Your task to perform on an android device: Go to display settings Image 0: 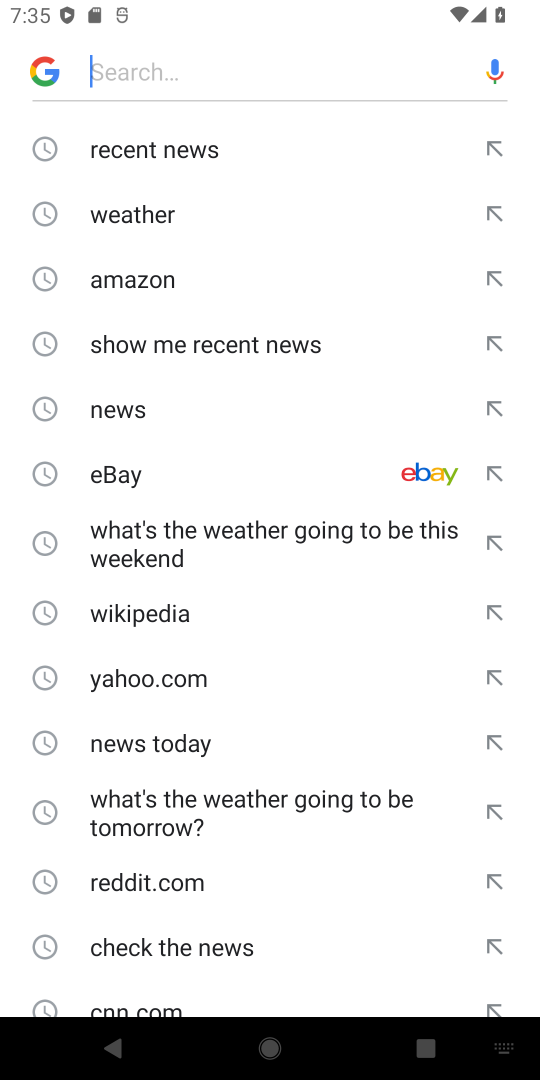
Step 0: press back button
Your task to perform on an android device: Go to display settings Image 1: 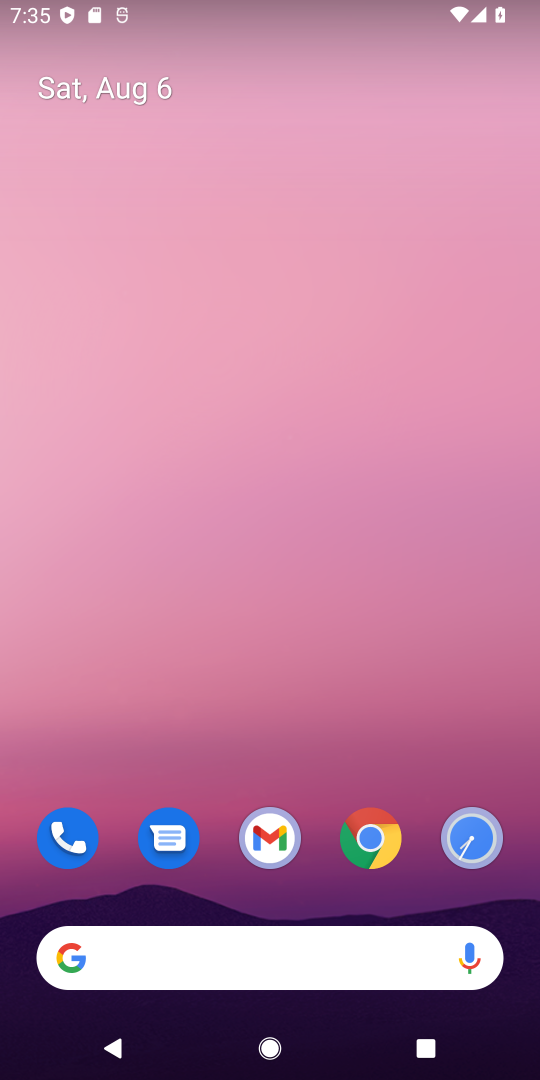
Step 1: click (266, 189)
Your task to perform on an android device: Go to display settings Image 2: 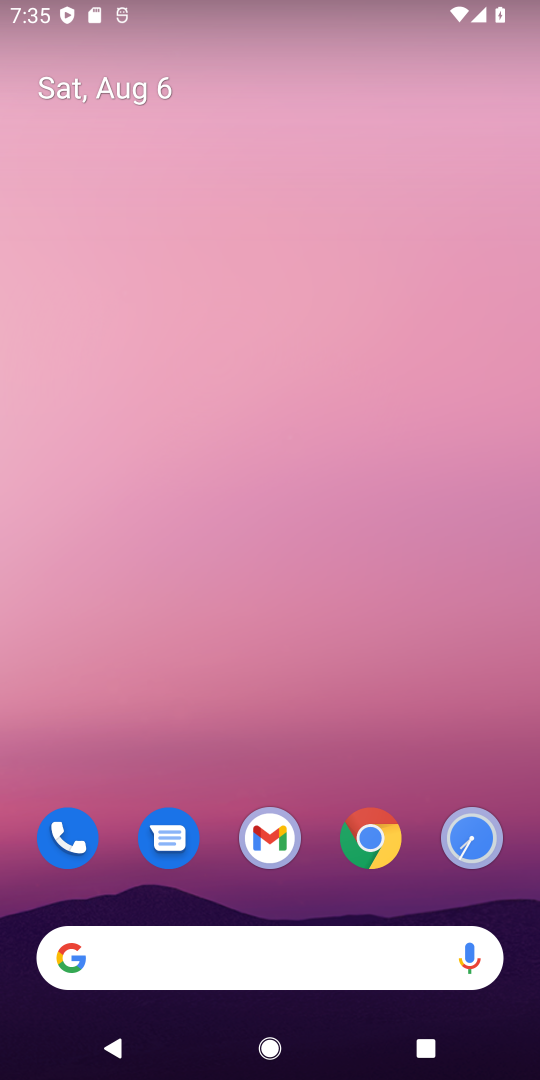
Step 2: drag from (207, 541) to (204, 248)
Your task to perform on an android device: Go to display settings Image 3: 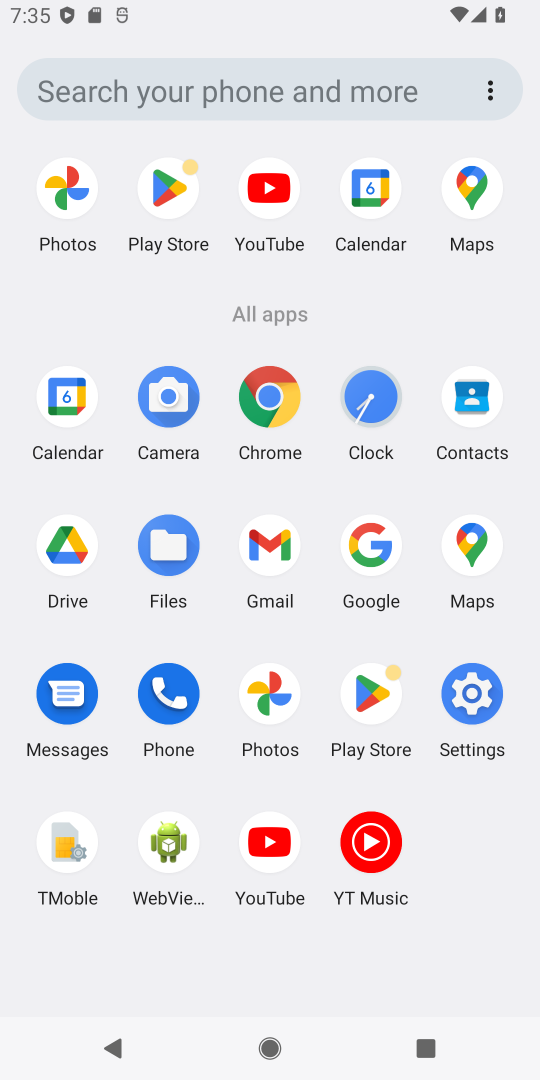
Step 3: press back button
Your task to perform on an android device: Go to display settings Image 4: 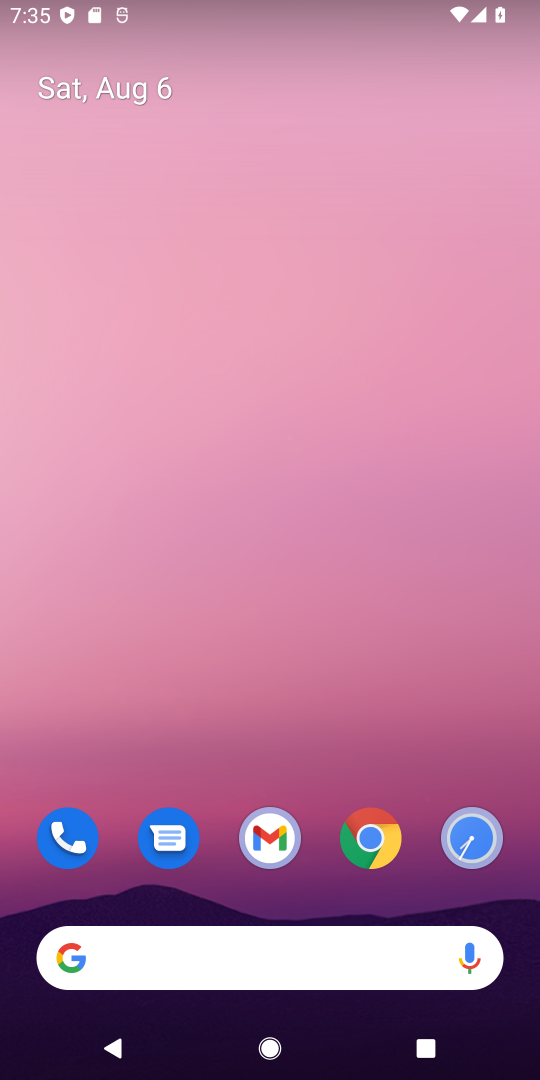
Step 4: drag from (274, 769) to (280, 266)
Your task to perform on an android device: Go to display settings Image 5: 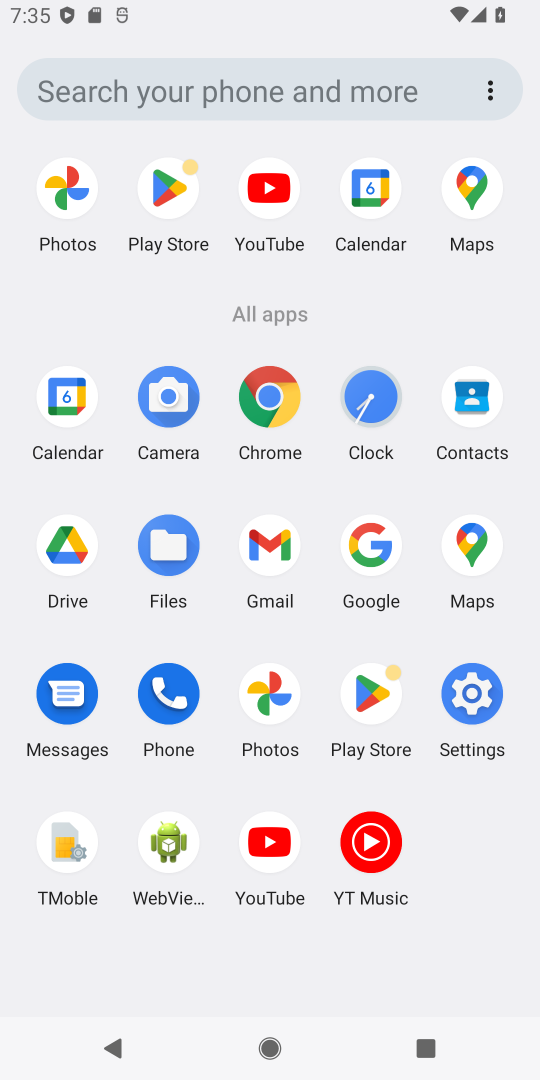
Step 5: click (460, 692)
Your task to perform on an android device: Go to display settings Image 6: 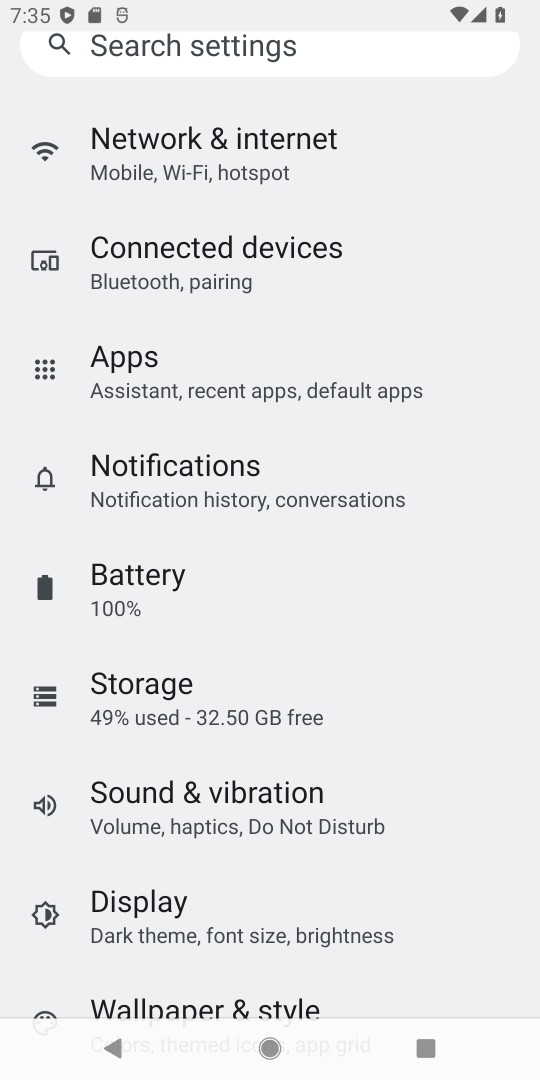
Step 6: click (156, 930)
Your task to perform on an android device: Go to display settings Image 7: 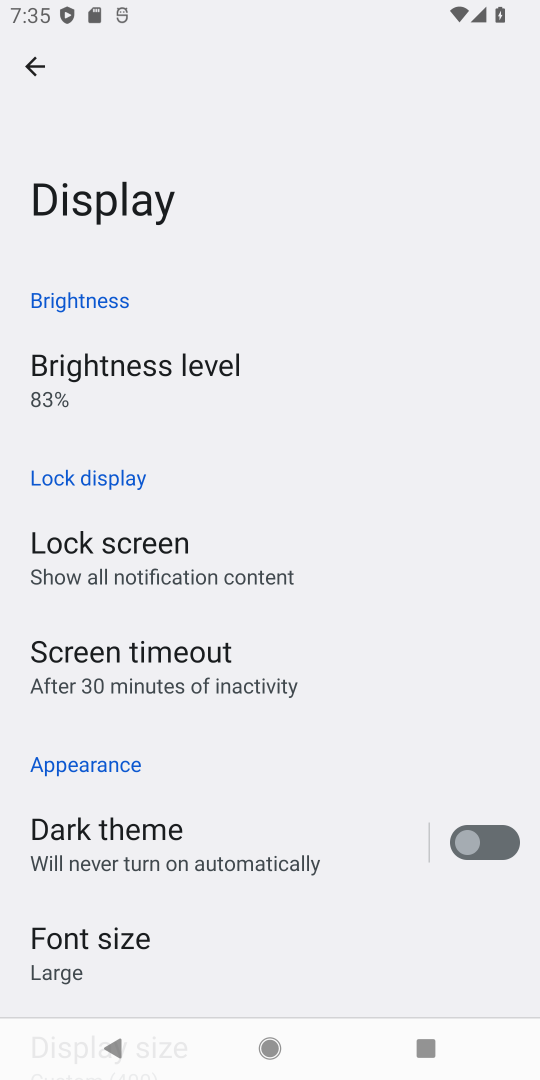
Step 7: task complete